Your task to perform on an android device: Go to sound settings Image 0: 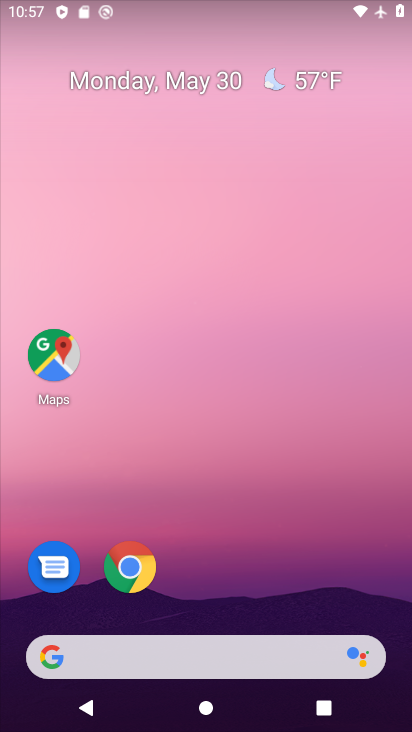
Step 0: drag from (192, 604) to (208, 204)
Your task to perform on an android device: Go to sound settings Image 1: 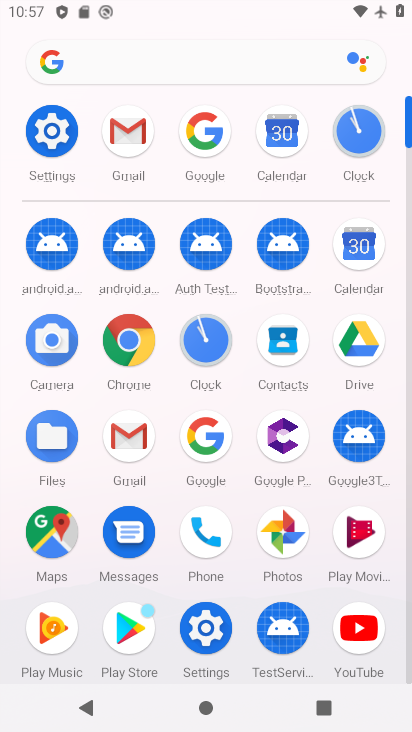
Step 1: click (47, 146)
Your task to perform on an android device: Go to sound settings Image 2: 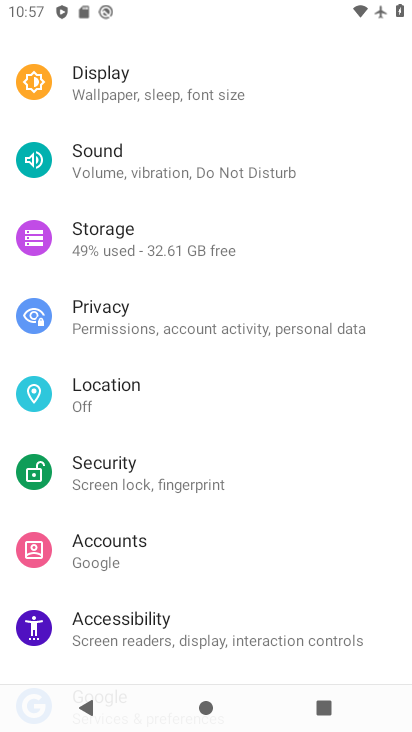
Step 2: click (127, 155)
Your task to perform on an android device: Go to sound settings Image 3: 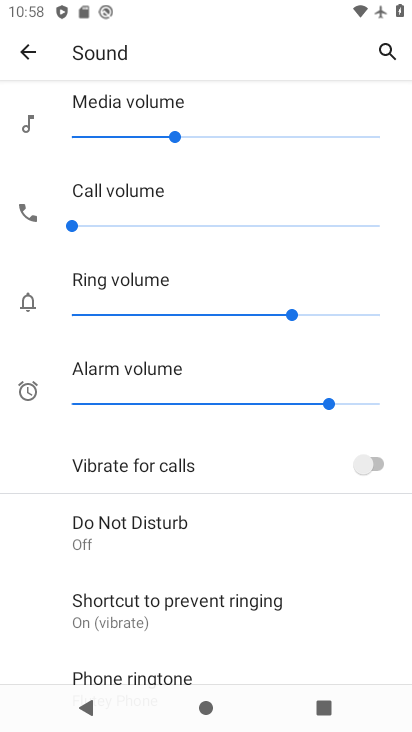
Step 3: task complete